Your task to perform on an android device: set the timer Image 0: 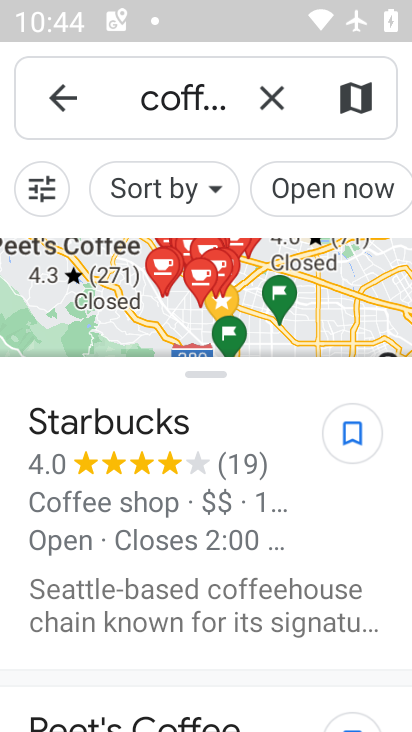
Step 0: press home button
Your task to perform on an android device: set the timer Image 1: 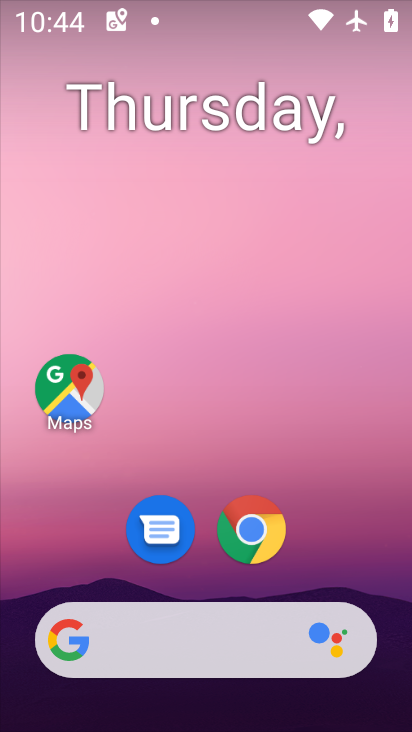
Step 1: drag from (306, 558) to (219, 21)
Your task to perform on an android device: set the timer Image 2: 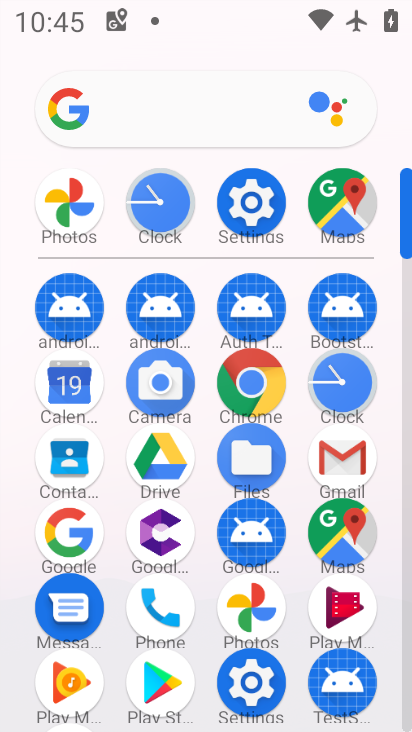
Step 2: click (345, 381)
Your task to perform on an android device: set the timer Image 3: 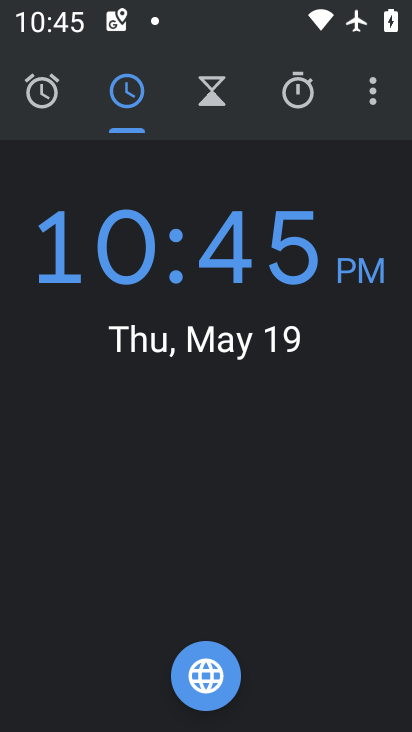
Step 3: click (231, 115)
Your task to perform on an android device: set the timer Image 4: 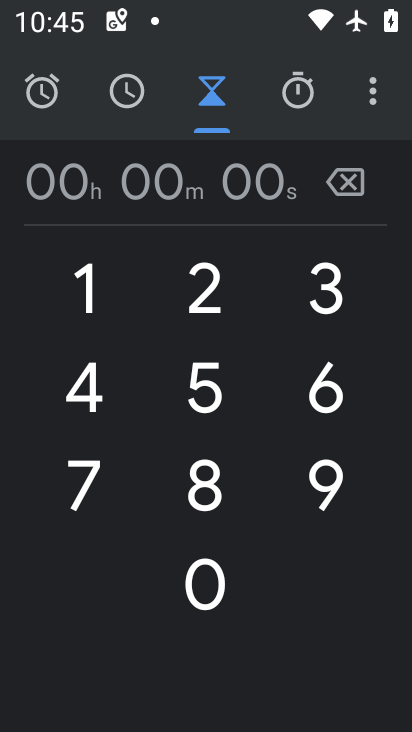
Step 4: click (195, 479)
Your task to perform on an android device: set the timer Image 5: 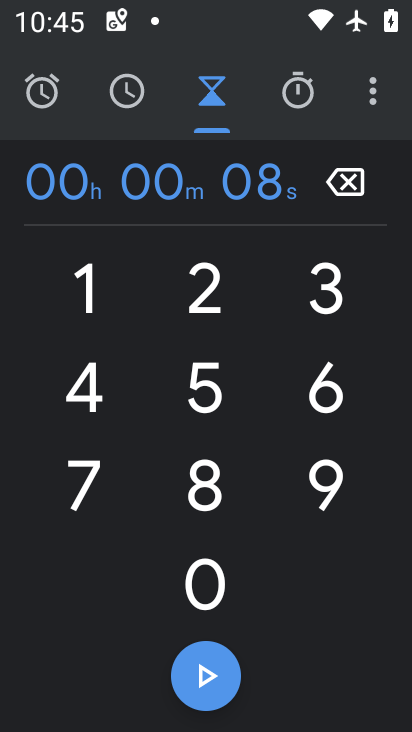
Step 5: click (187, 430)
Your task to perform on an android device: set the timer Image 6: 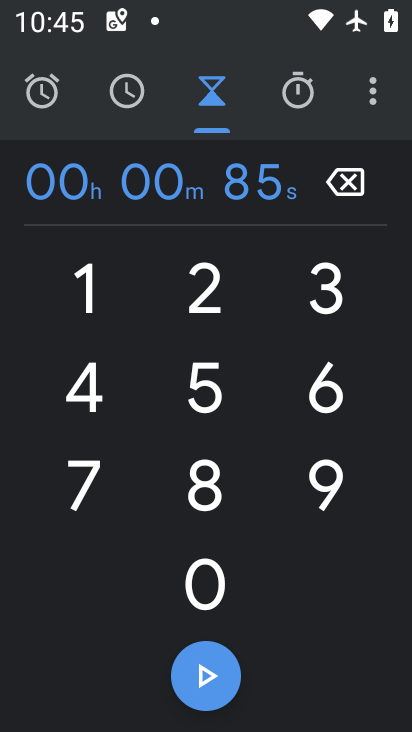
Step 6: click (207, 321)
Your task to perform on an android device: set the timer Image 7: 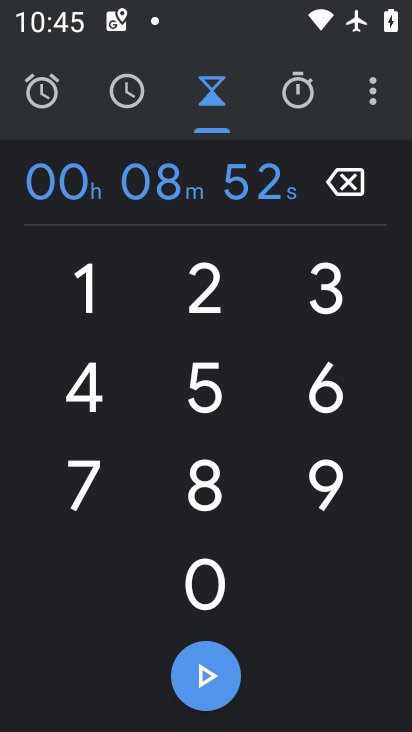
Step 7: click (209, 398)
Your task to perform on an android device: set the timer Image 8: 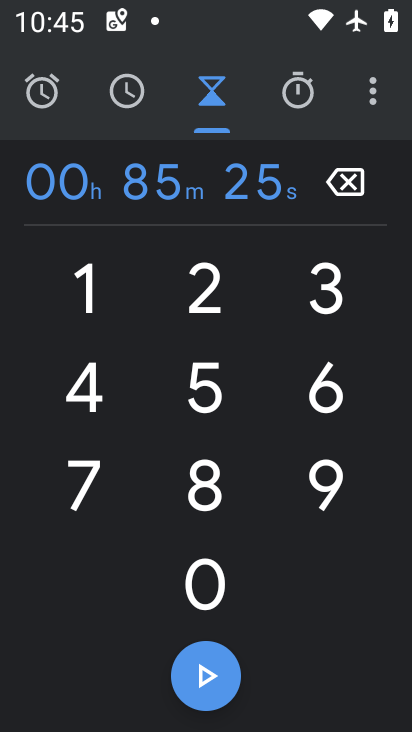
Step 8: click (212, 464)
Your task to perform on an android device: set the timer Image 9: 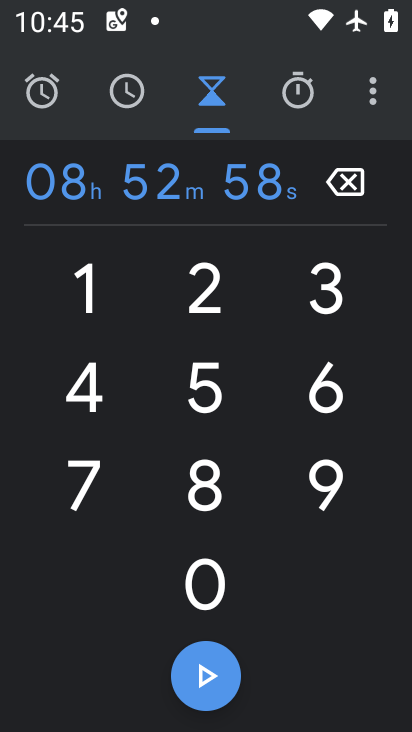
Step 9: click (228, 534)
Your task to perform on an android device: set the timer Image 10: 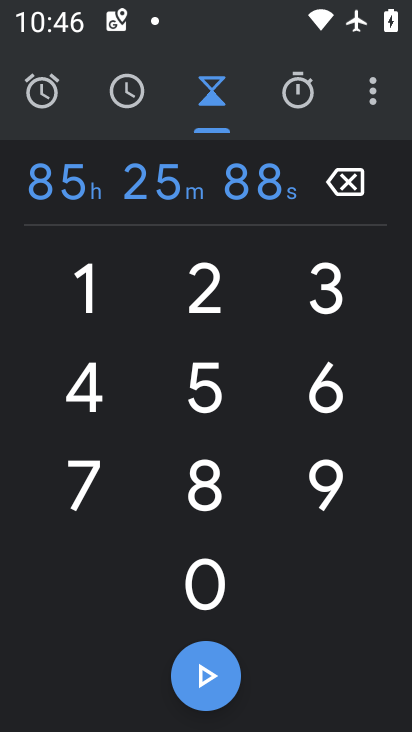
Step 10: click (211, 458)
Your task to perform on an android device: set the timer Image 11: 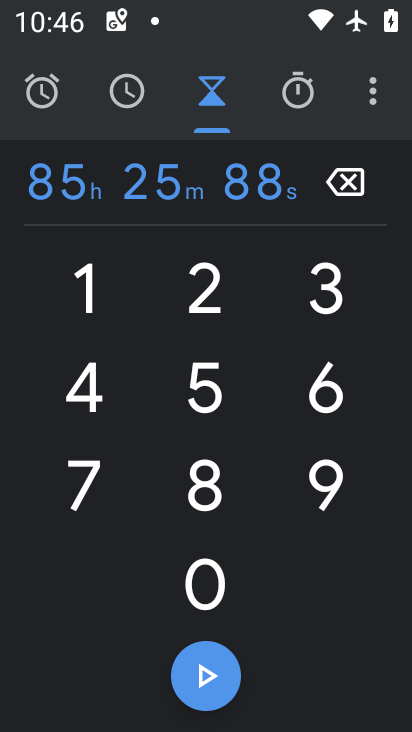
Step 11: click (209, 667)
Your task to perform on an android device: set the timer Image 12: 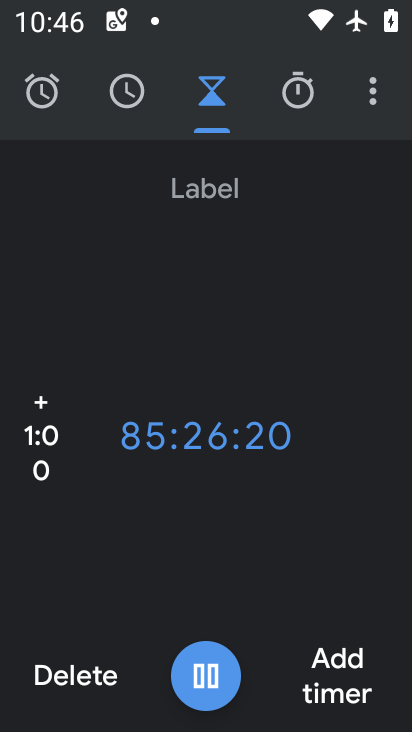
Step 12: task complete